Your task to perform on an android device: What's the weather going to be tomorrow? Image 0: 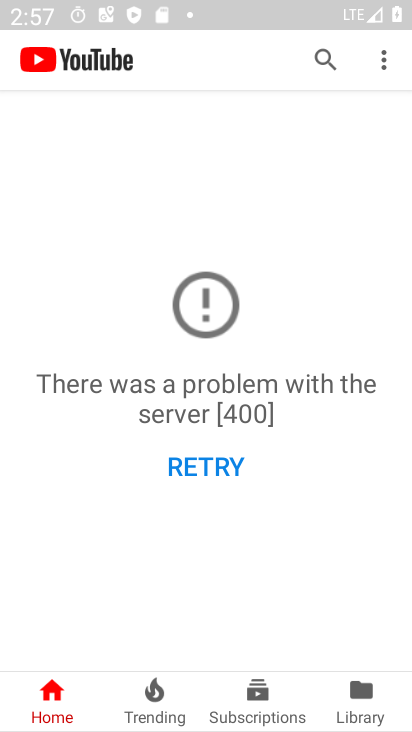
Step 0: press back button
Your task to perform on an android device: What's the weather going to be tomorrow? Image 1: 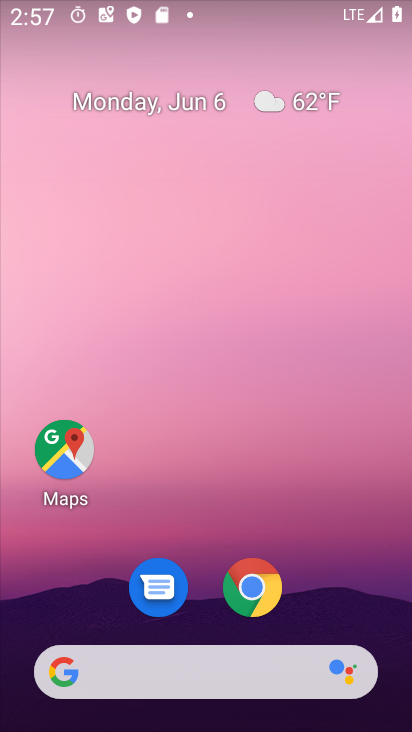
Step 1: drag from (342, 584) to (208, 0)
Your task to perform on an android device: What's the weather going to be tomorrow? Image 2: 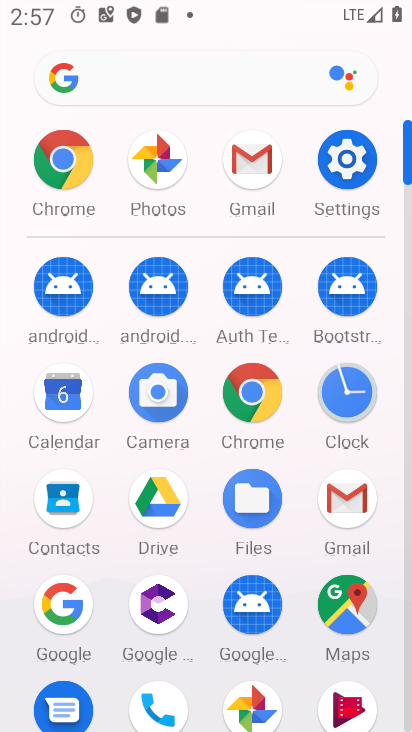
Step 2: drag from (19, 636) to (11, 278)
Your task to perform on an android device: What's the weather going to be tomorrow? Image 3: 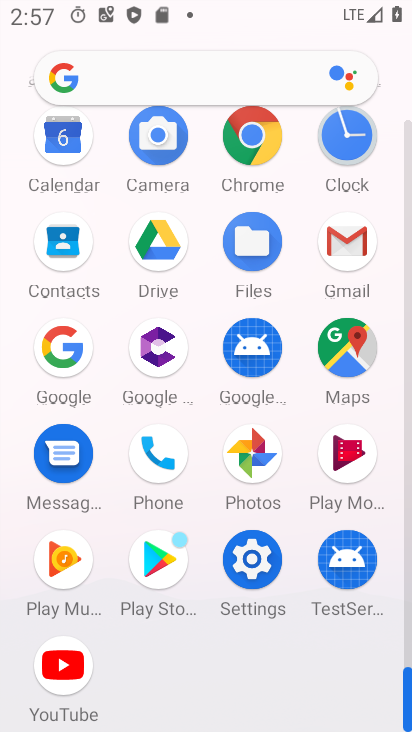
Step 3: click (250, 138)
Your task to perform on an android device: What's the weather going to be tomorrow? Image 4: 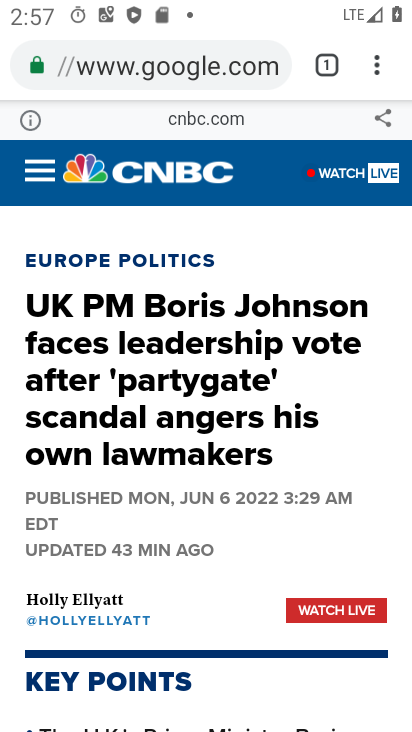
Step 4: click (156, 63)
Your task to perform on an android device: What's the weather going to be tomorrow? Image 5: 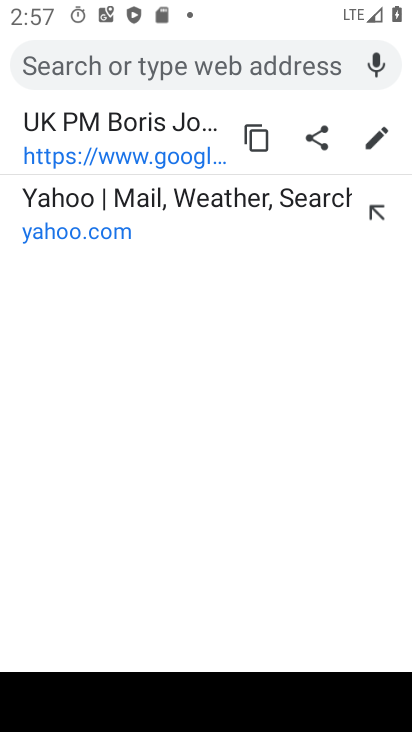
Step 5: type "What's the weather going to be tomorrow?"
Your task to perform on an android device: What's the weather going to be tomorrow? Image 6: 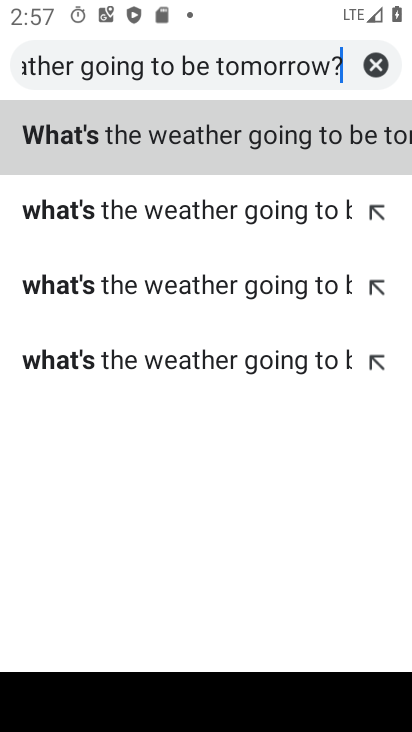
Step 6: type ""
Your task to perform on an android device: What's the weather going to be tomorrow? Image 7: 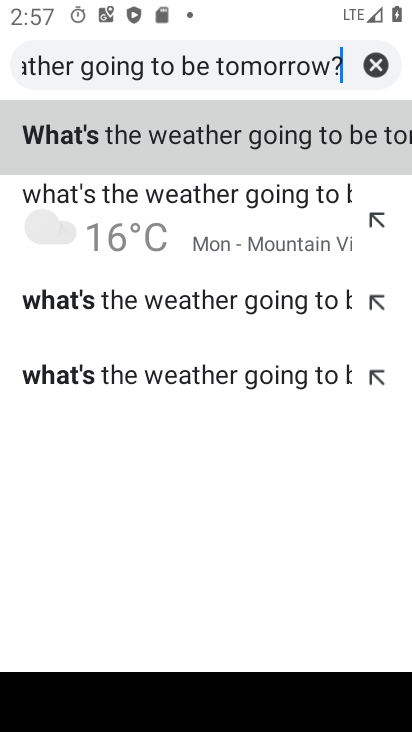
Step 7: click (131, 134)
Your task to perform on an android device: What's the weather going to be tomorrow? Image 8: 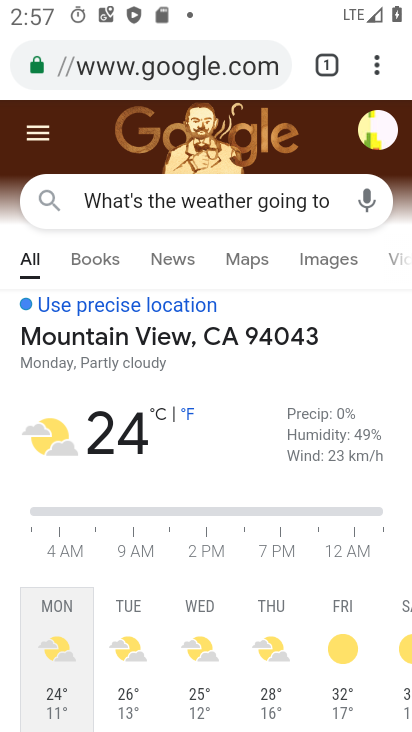
Step 8: click (129, 605)
Your task to perform on an android device: What's the weather going to be tomorrow? Image 9: 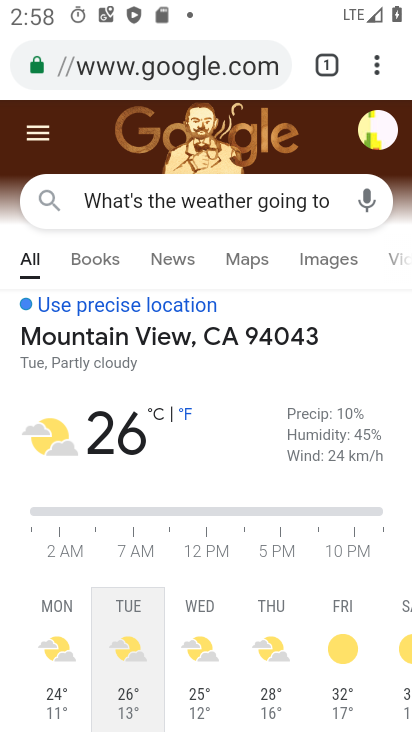
Step 9: task complete